Your task to perform on an android device: Show me the alarms in the clock app Image 0: 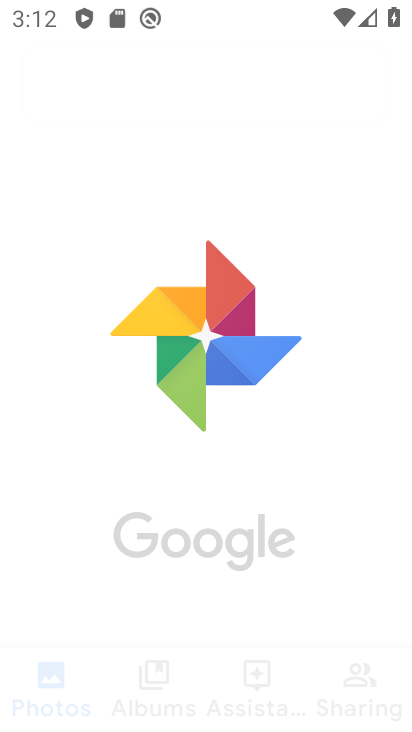
Step 0: drag from (249, 430) to (308, 164)
Your task to perform on an android device: Show me the alarms in the clock app Image 1: 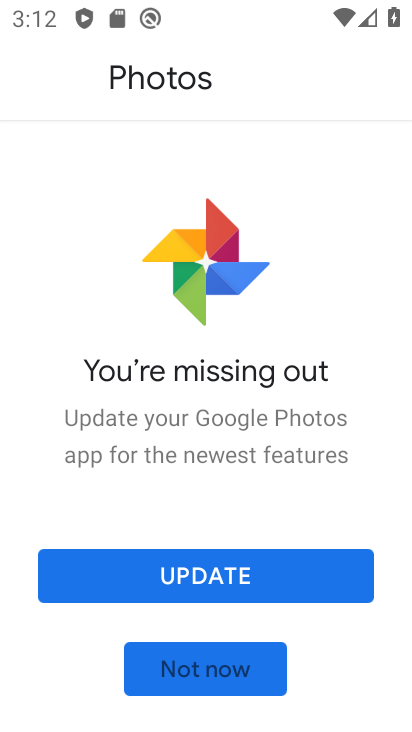
Step 1: press home button
Your task to perform on an android device: Show me the alarms in the clock app Image 2: 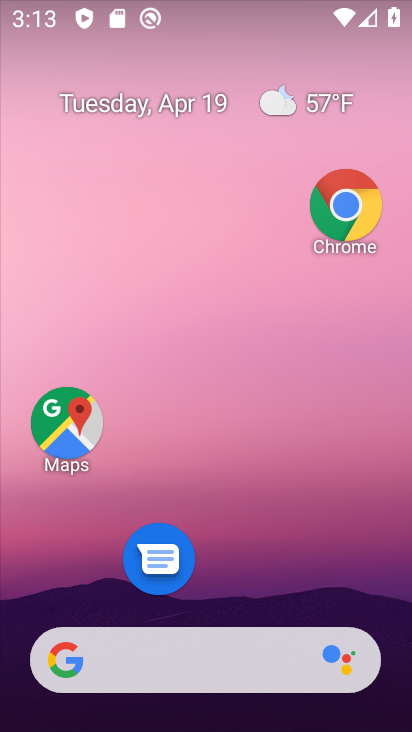
Step 2: drag from (193, 608) to (199, 204)
Your task to perform on an android device: Show me the alarms in the clock app Image 3: 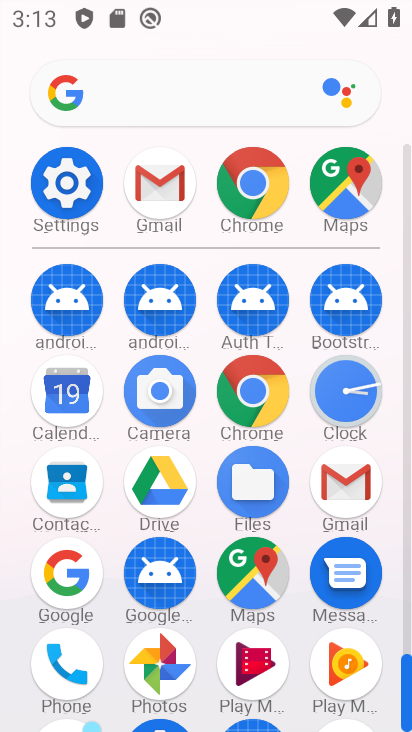
Step 3: drag from (207, 577) to (225, 461)
Your task to perform on an android device: Show me the alarms in the clock app Image 4: 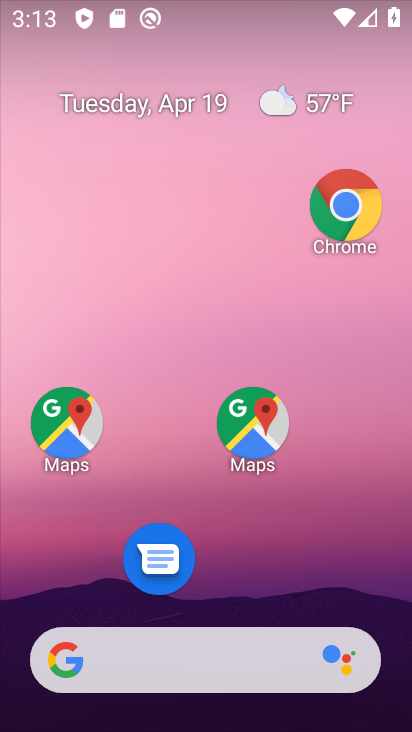
Step 4: drag from (256, 572) to (267, 179)
Your task to perform on an android device: Show me the alarms in the clock app Image 5: 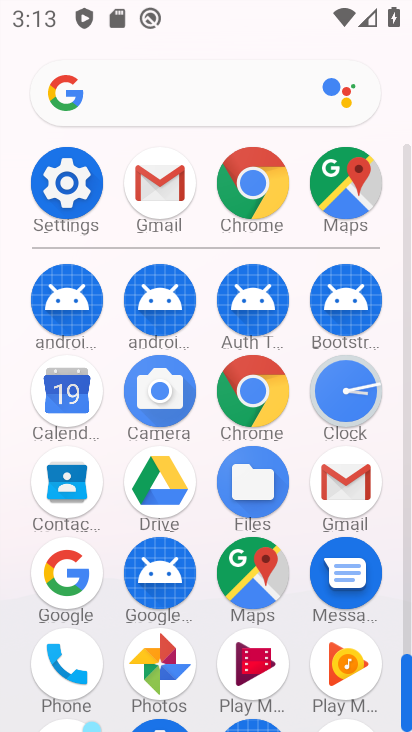
Step 5: click (356, 398)
Your task to perform on an android device: Show me the alarms in the clock app Image 6: 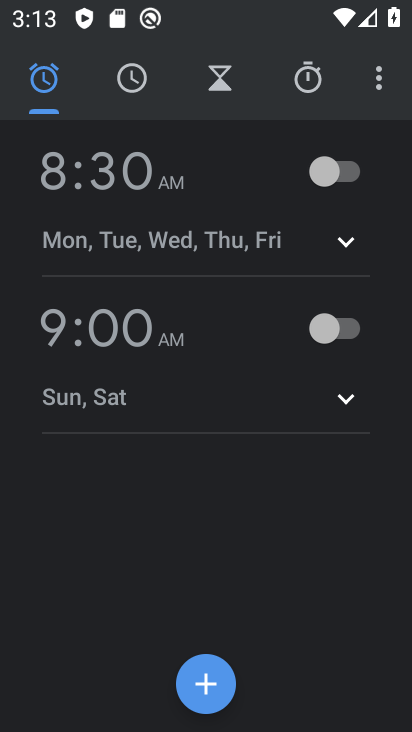
Step 6: task complete